Your task to perform on an android device: Search for sushi restaurants on Maps Image 0: 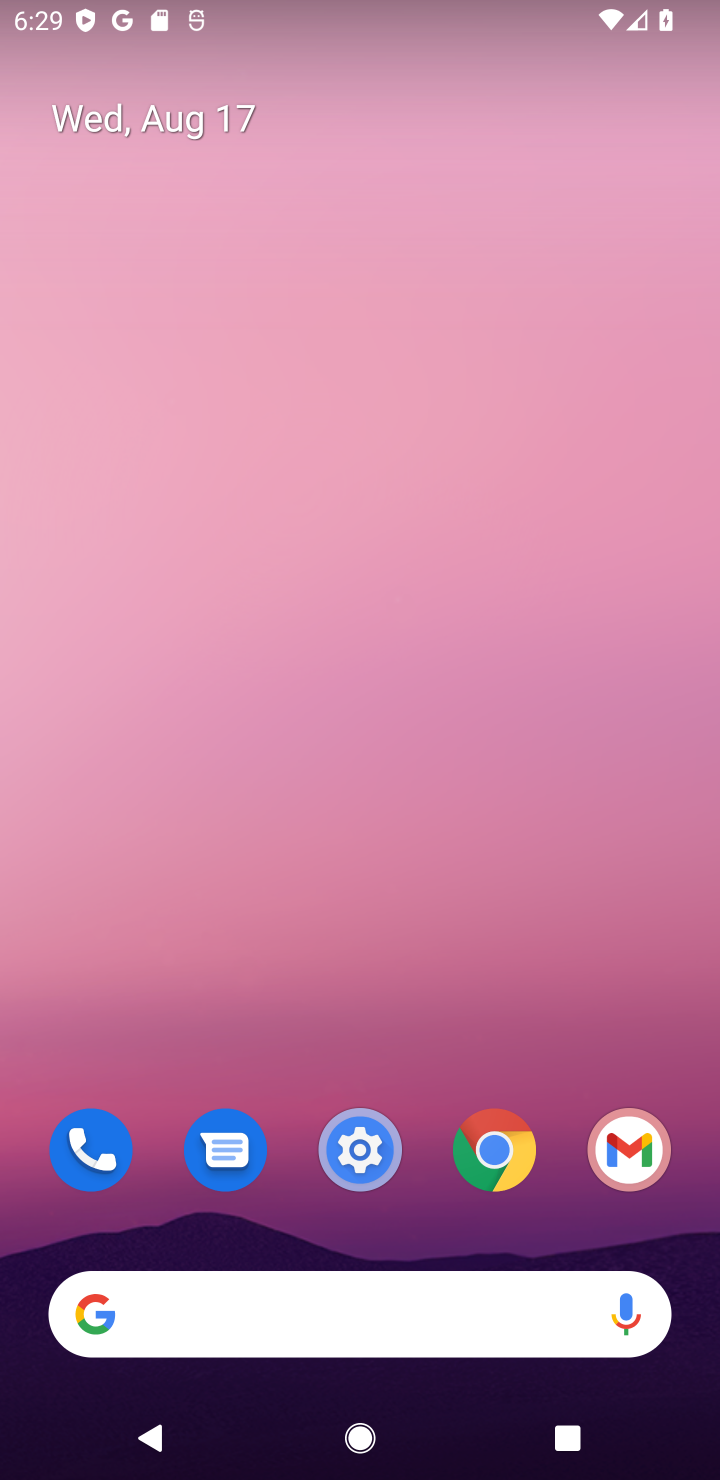
Step 0: drag from (450, 530) to (448, 163)
Your task to perform on an android device: Search for sushi restaurants on Maps Image 1: 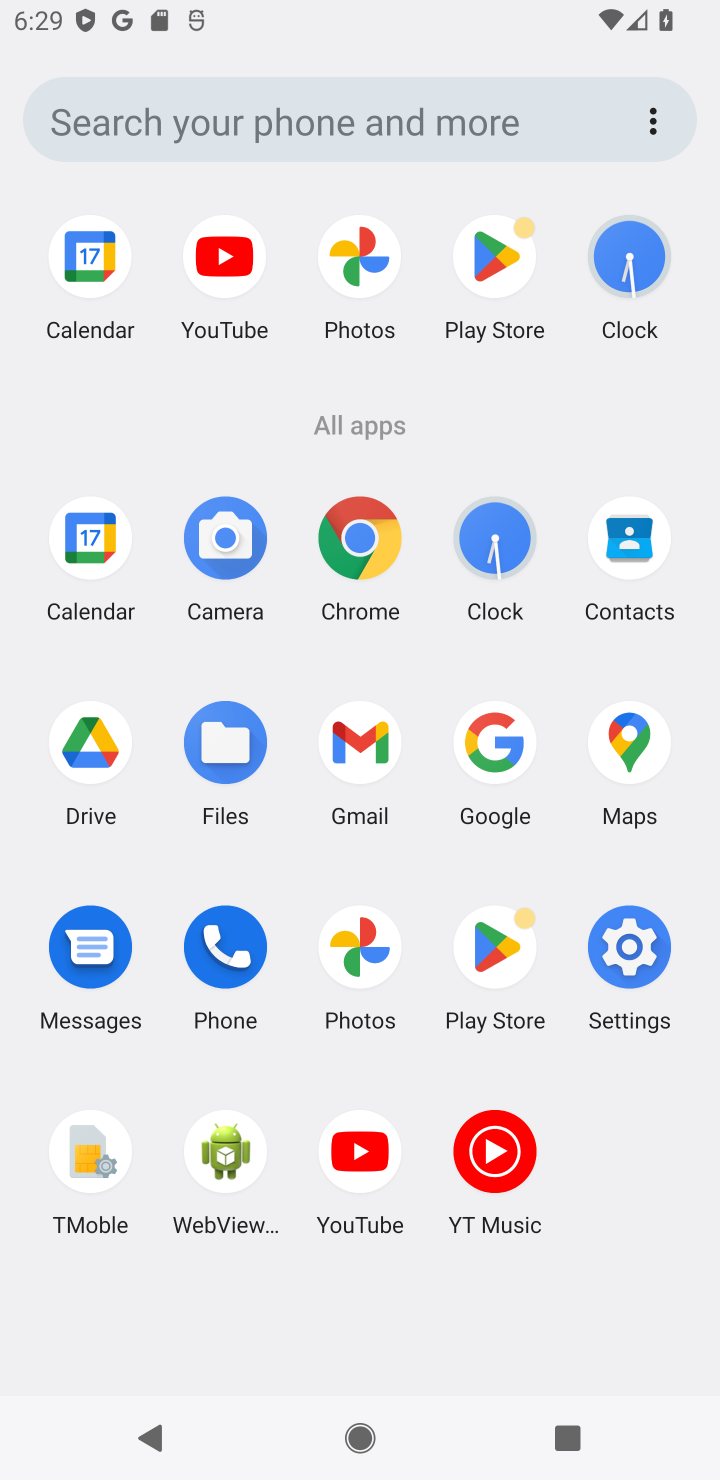
Step 1: click (628, 750)
Your task to perform on an android device: Search for sushi restaurants on Maps Image 2: 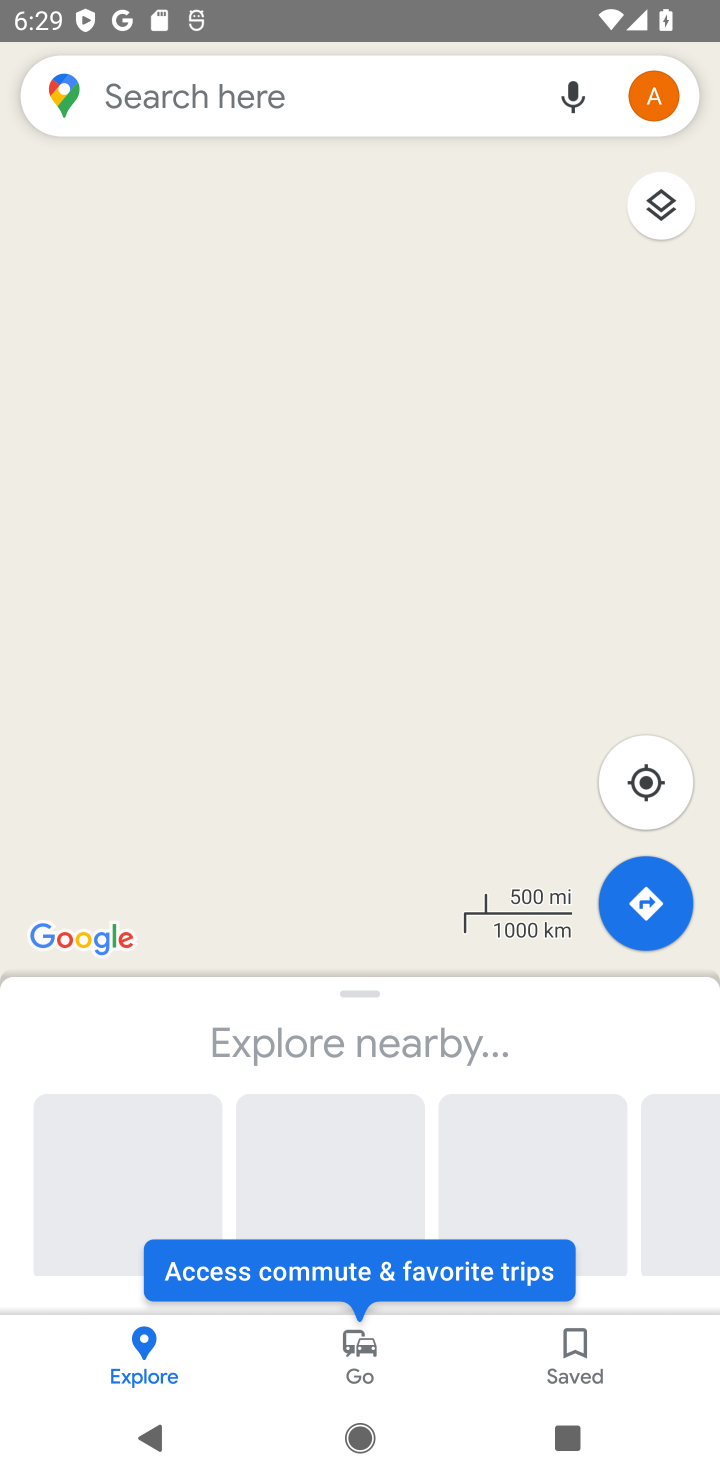
Step 2: click (212, 110)
Your task to perform on an android device: Search for sushi restaurants on Maps Image 3: 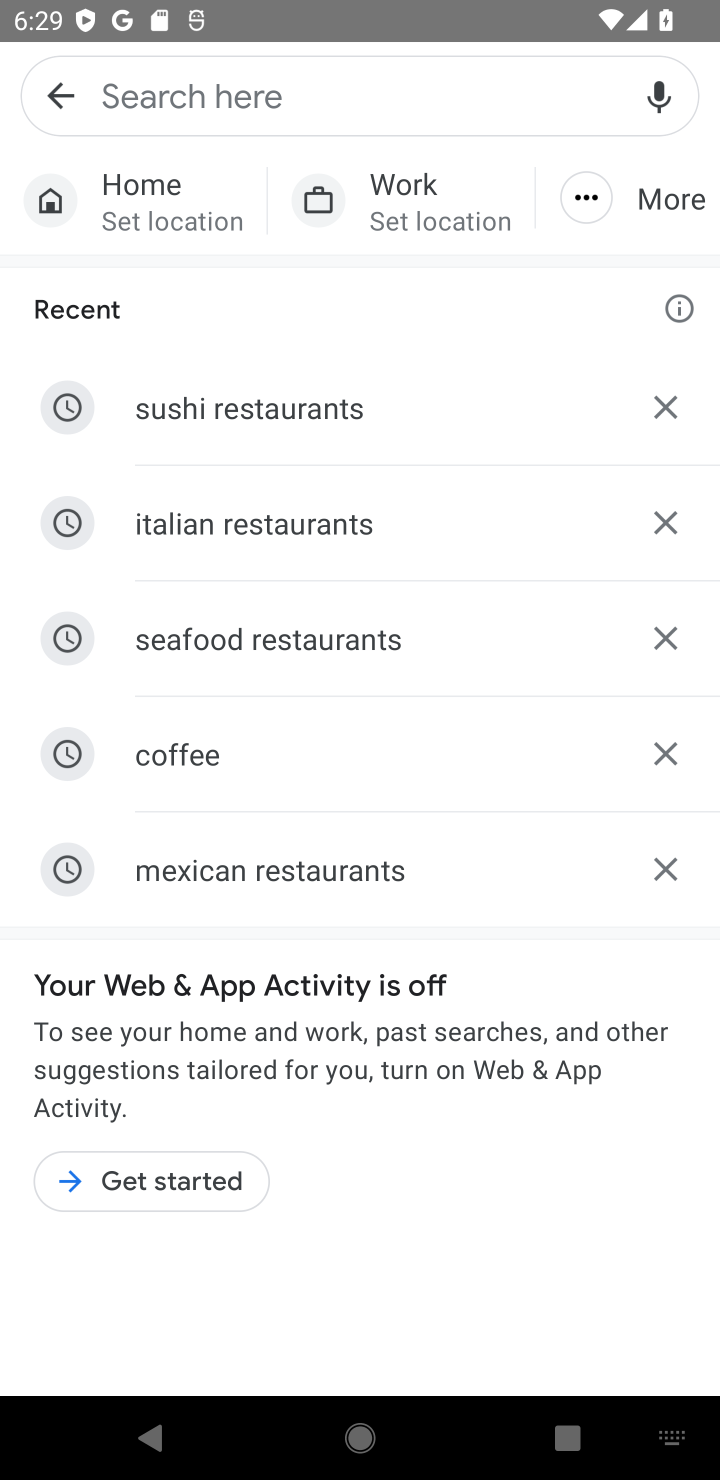
Step 3: click (209, 390)
Your task to perform on an android device: Search for sushi restaurants on Maps Image 4: 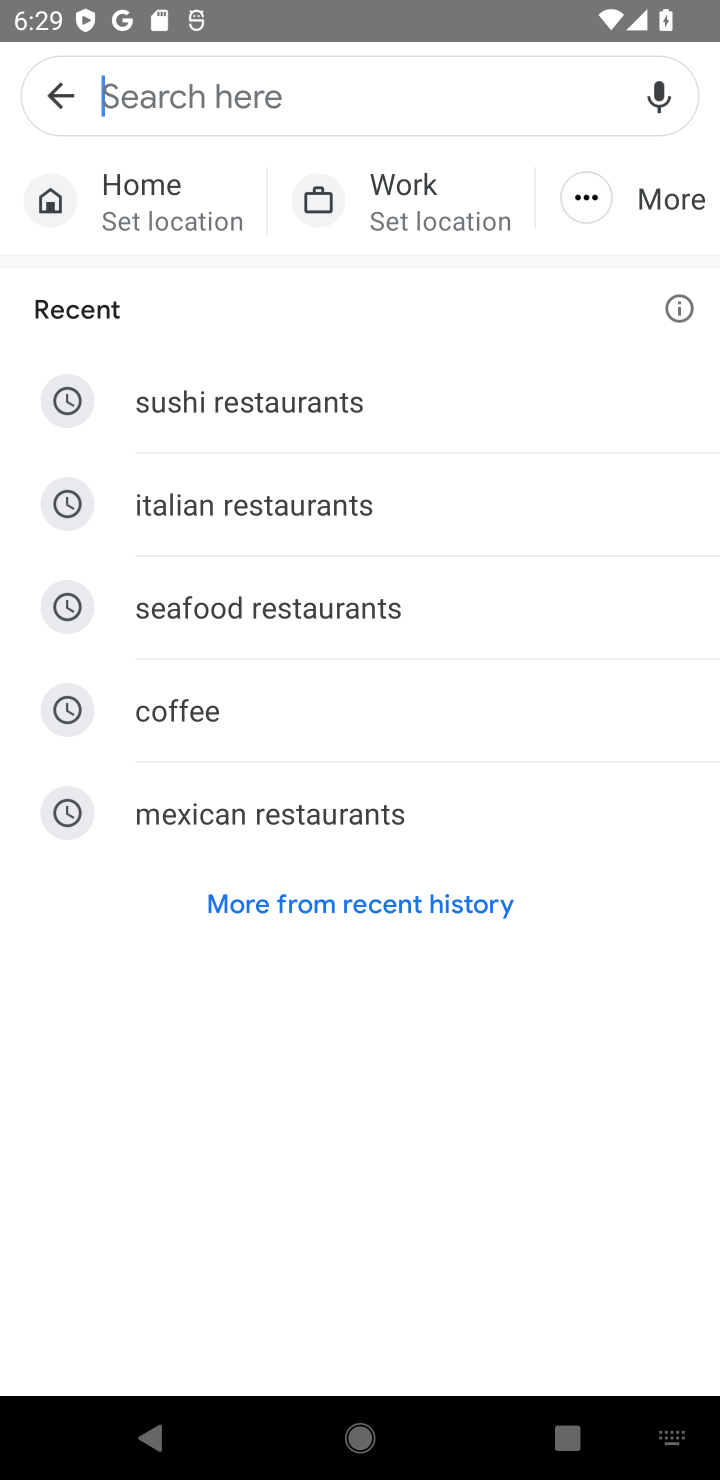
Step 4: click (259, 410)
Your task to perform on an android device: Search for sushi restaurants on Maps Image 5: 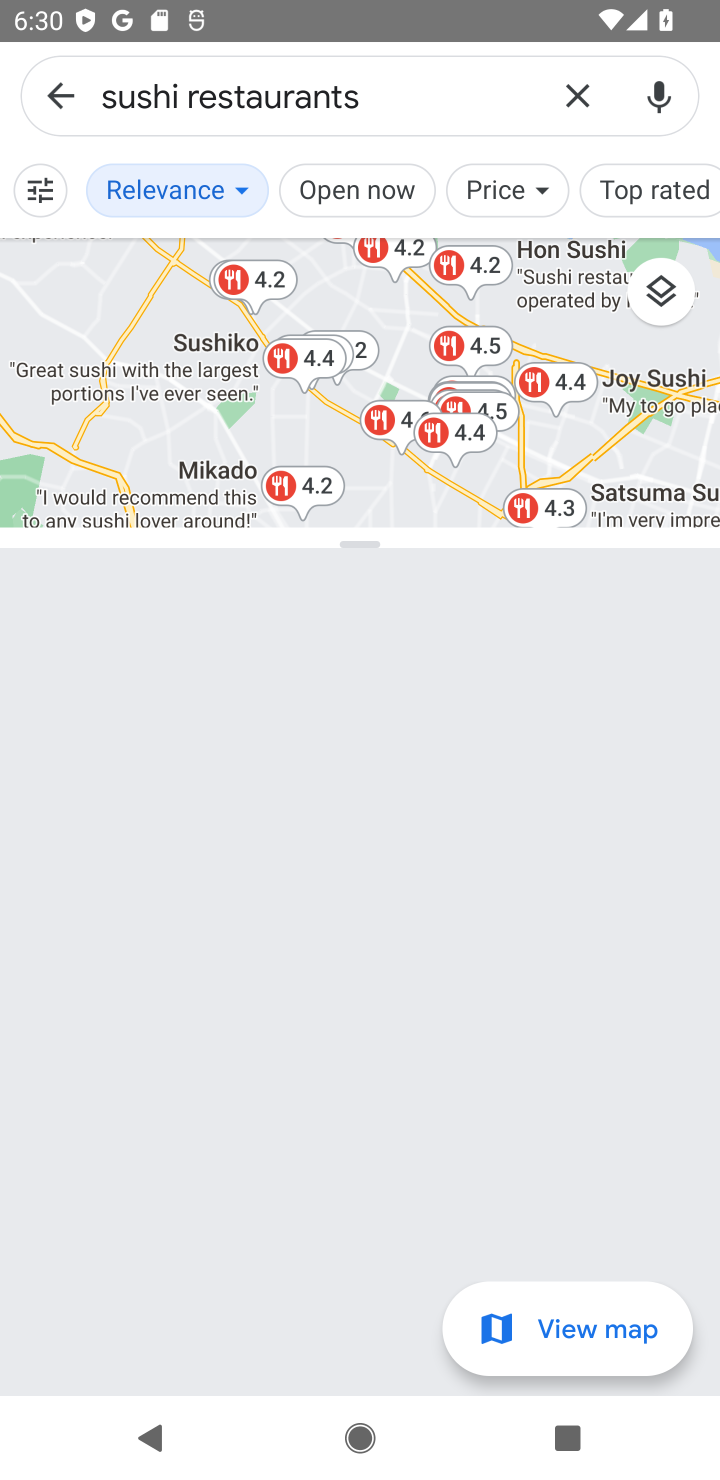
Step 5: task complete